Your task to perform on an android device: change timer sound Image 0: 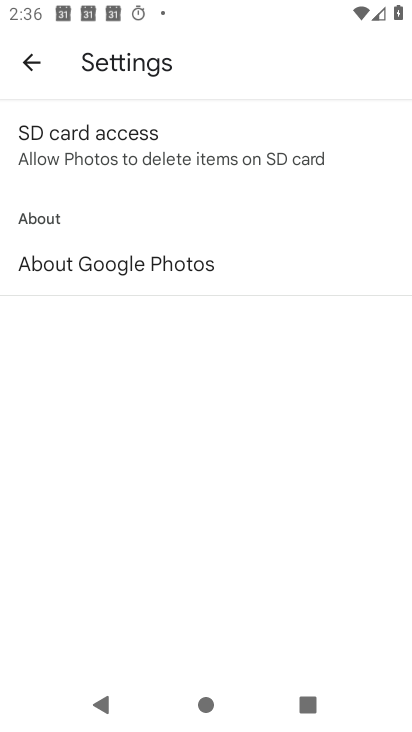
Step 0: drag from (205, 595) to (241, 136)
Your task to perform on an android device: change timer sound Image 1: 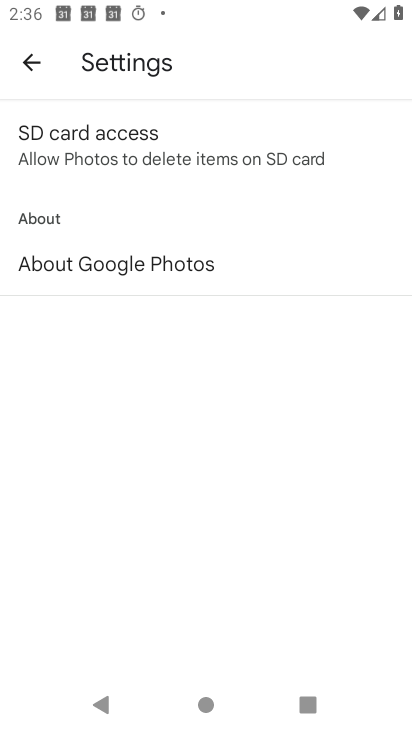
Step 1: press home button
Your task to perform on an android device: change timer sound Image 2: 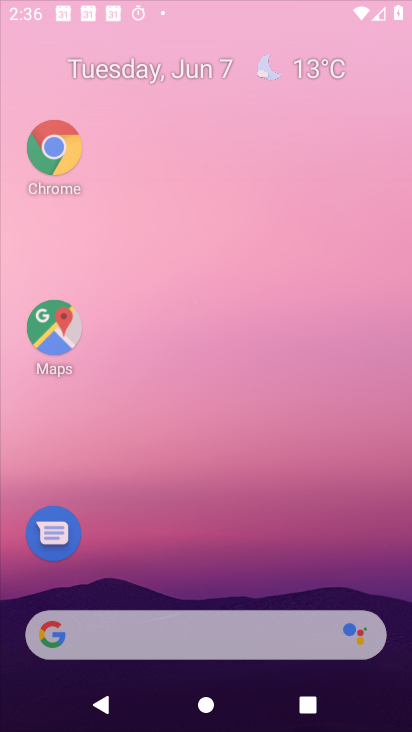
Step 2: drag from (204, 606) to (260, 149)
Your task to perform on an android device: change timer sound Image 3: 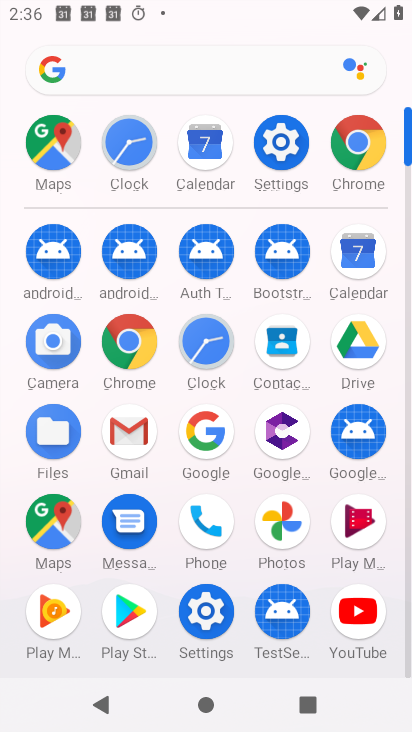
Step 3: click (170, 363)
Your task to perform on an android device: change timer sound Image 4: 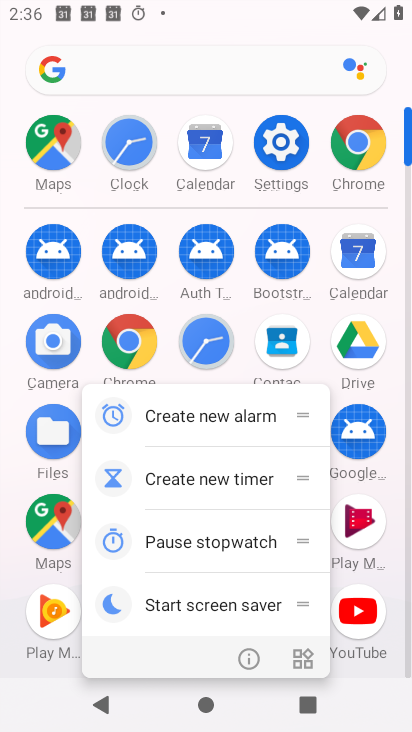
Step 4: click (247, 654)
Your task to perform on an android device: change timer sound Image 5: 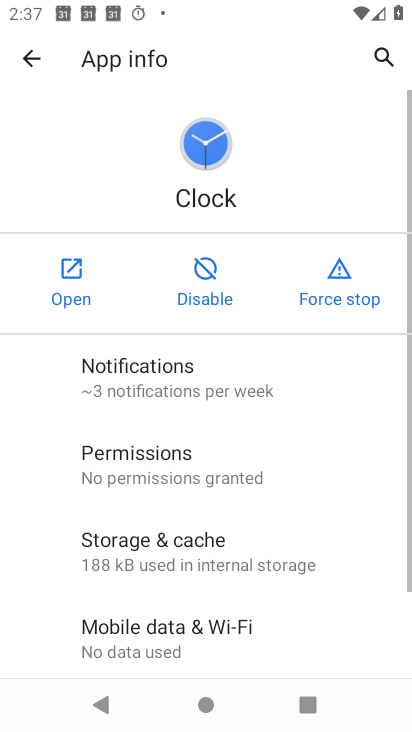
Step 5: click (66, 266)
Your task to perform on an android device: change timer sound Image 6: 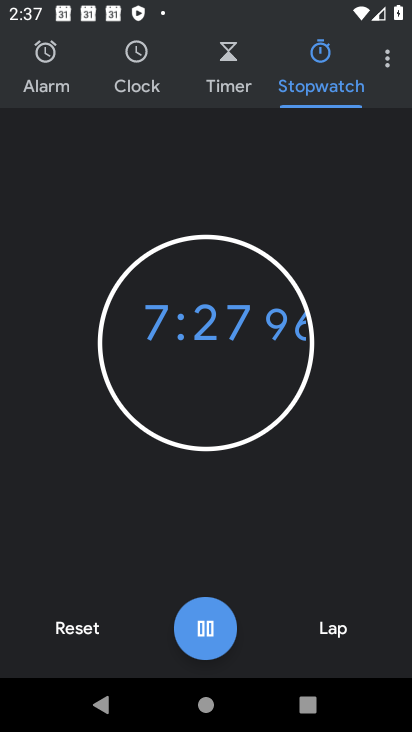
Step 6: click (64, 632)
Your task to perform on an android device: change timer sound Image 7: 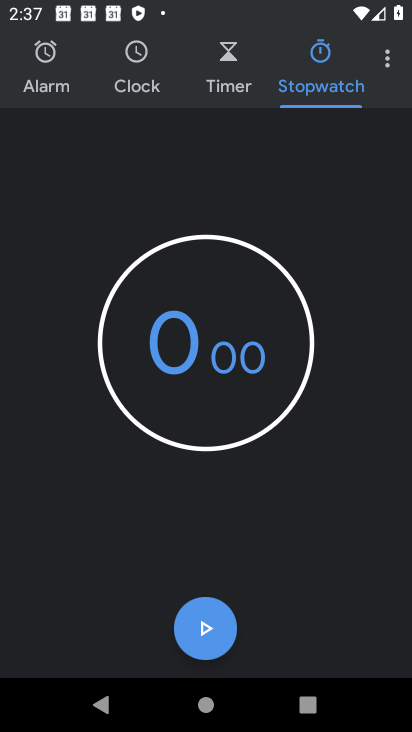
Step 7: click (387, 56)
Your task to perform on an android device: change timer sound Image 8: 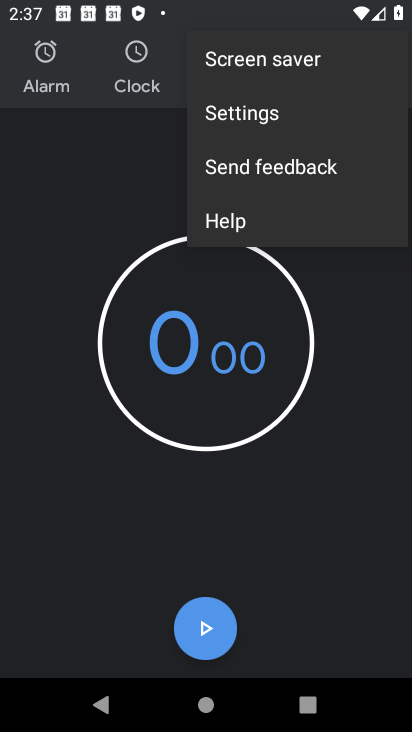
Step 8: click (303, 118)
Your task to perform on an android device: change timer sound Image 9: 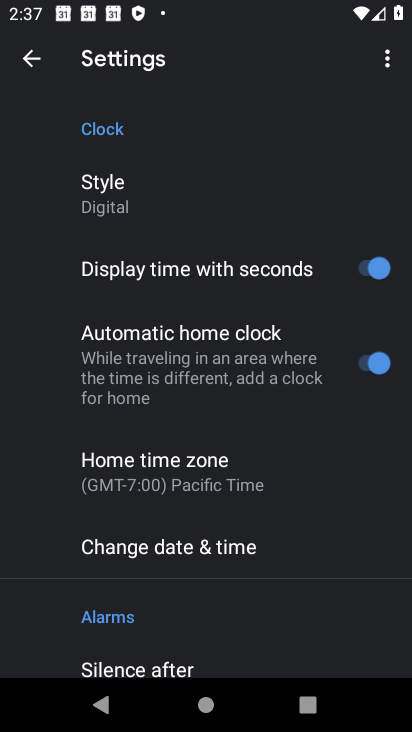
Step 9: drag from (220, 571) to (306, 128)
Your task to perform on an android device: change timer sound Image 10: 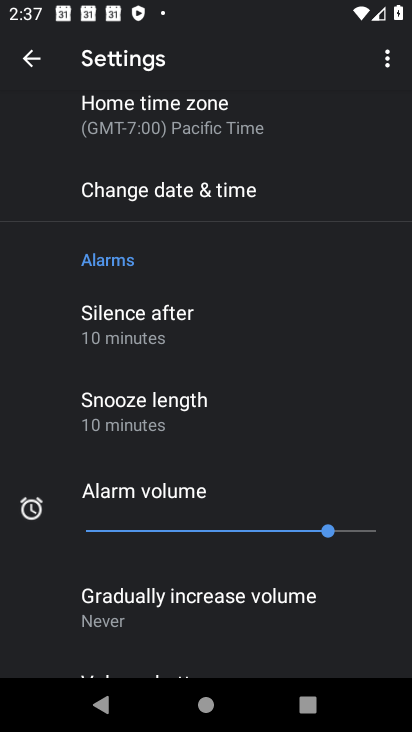
Step 10: drag from (191, 603) to (277, 100)
Your task to perform on an android device: change timer sound Image 11: 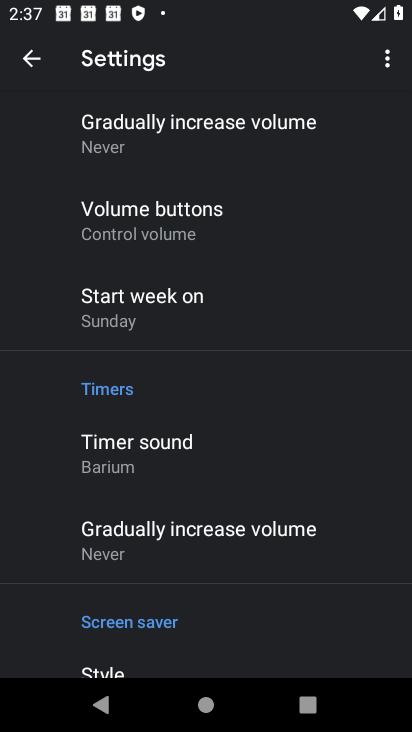
Step 11: click (163, 464)
Your task to perform on an android device: change timer sound Image 12: 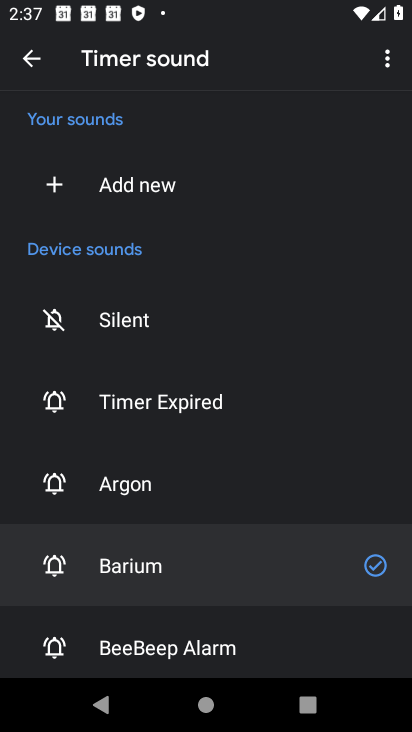
Step 12: click (199, 641)
Your task to perform on an android device: change timer sound Image 13: 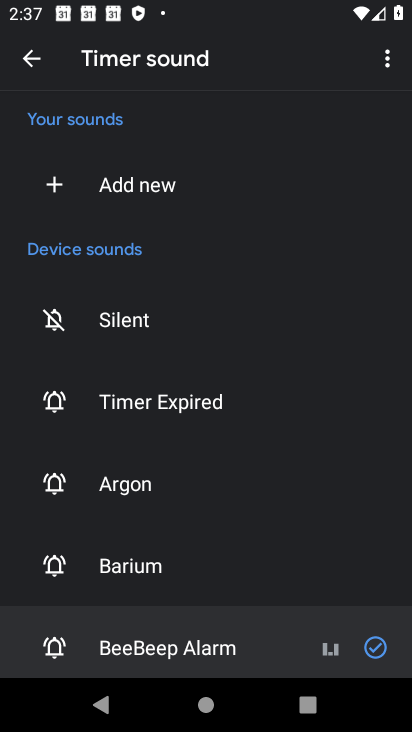
Step 13: task complete